Your task to perform on an android device: Go to Google Image 0: 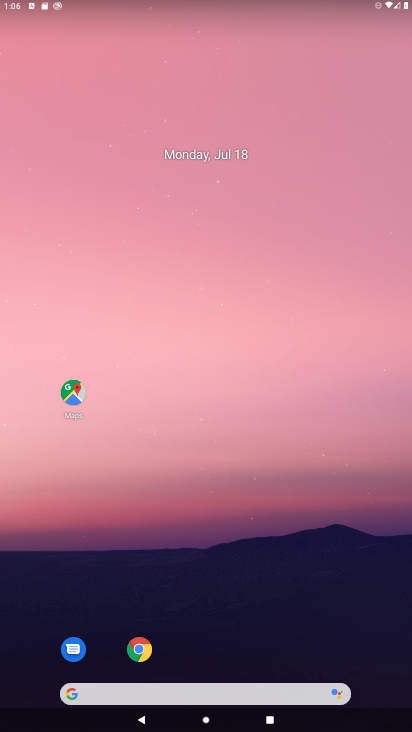
Step 0: click (140, 655)
Your task to perform on an android device: Go to Google Image 1: 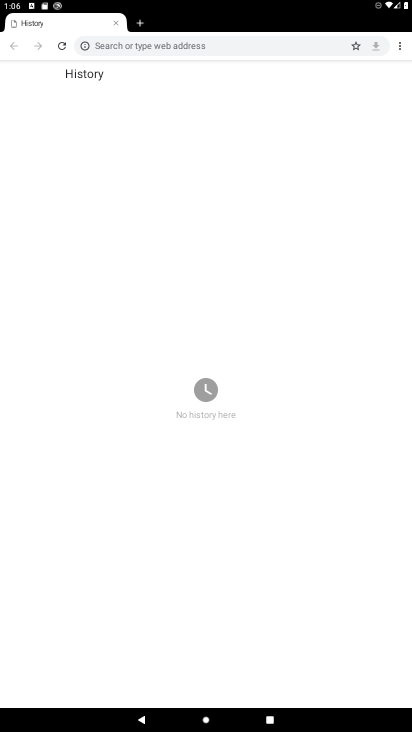
Step 1: task complete